Your task to perform on an android device: open app "Yahoo Mail" (install if not already installed) and go to login screen Image 0: 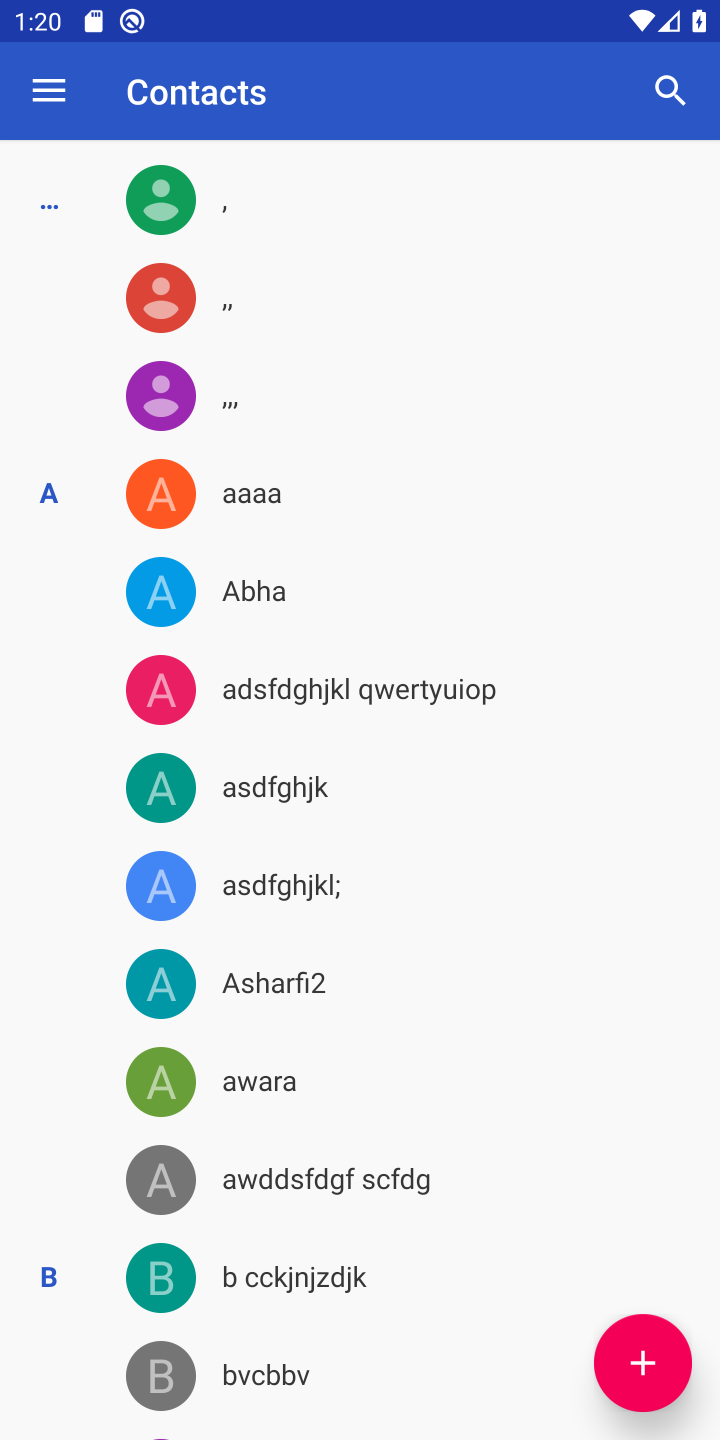
Step 0: press home button
Your task to perform on an android device: open app "Yahoo Mail" (install if not already installed) and go to login screen Image 1: 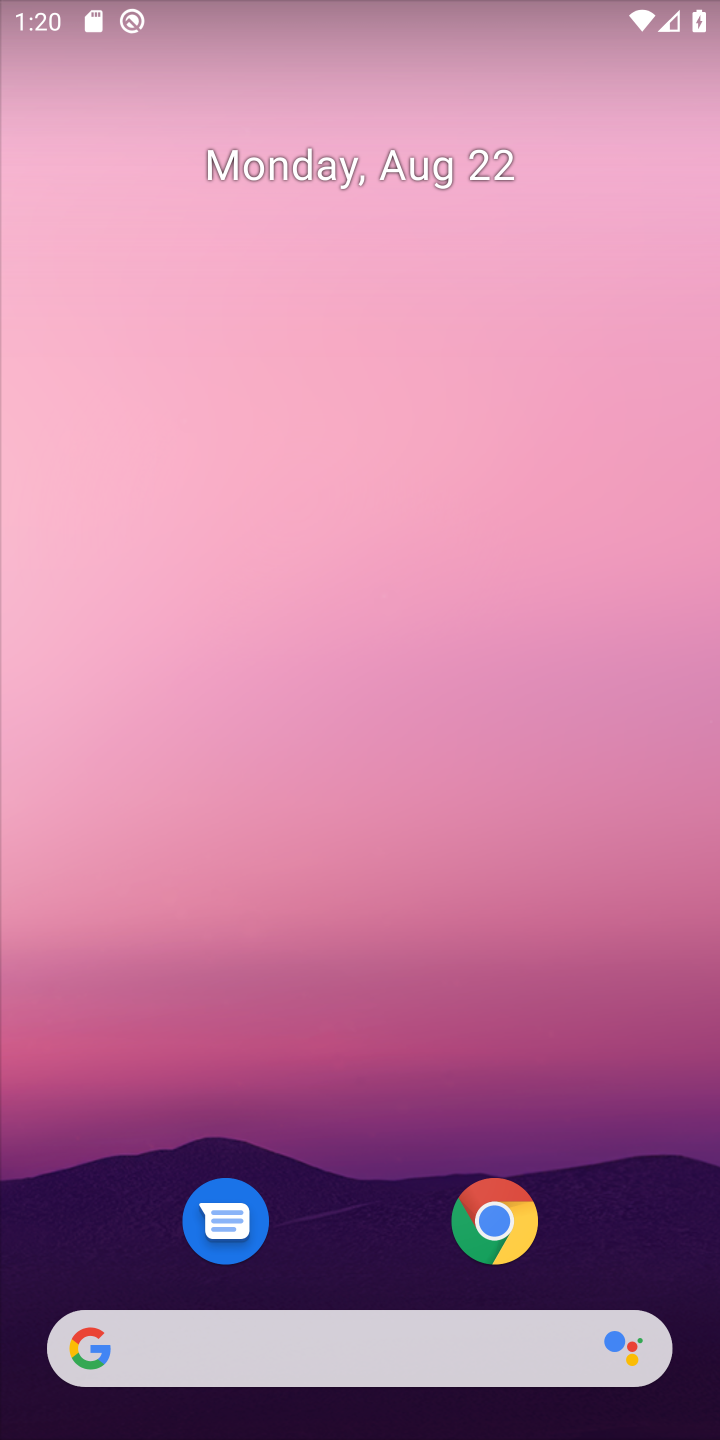
Step 1: drag from (380, 1255) to (375, 140)
Your task to perform on an android device: open app "Yahoo Mail" (install if not already installed) and go to login screen Image 2: 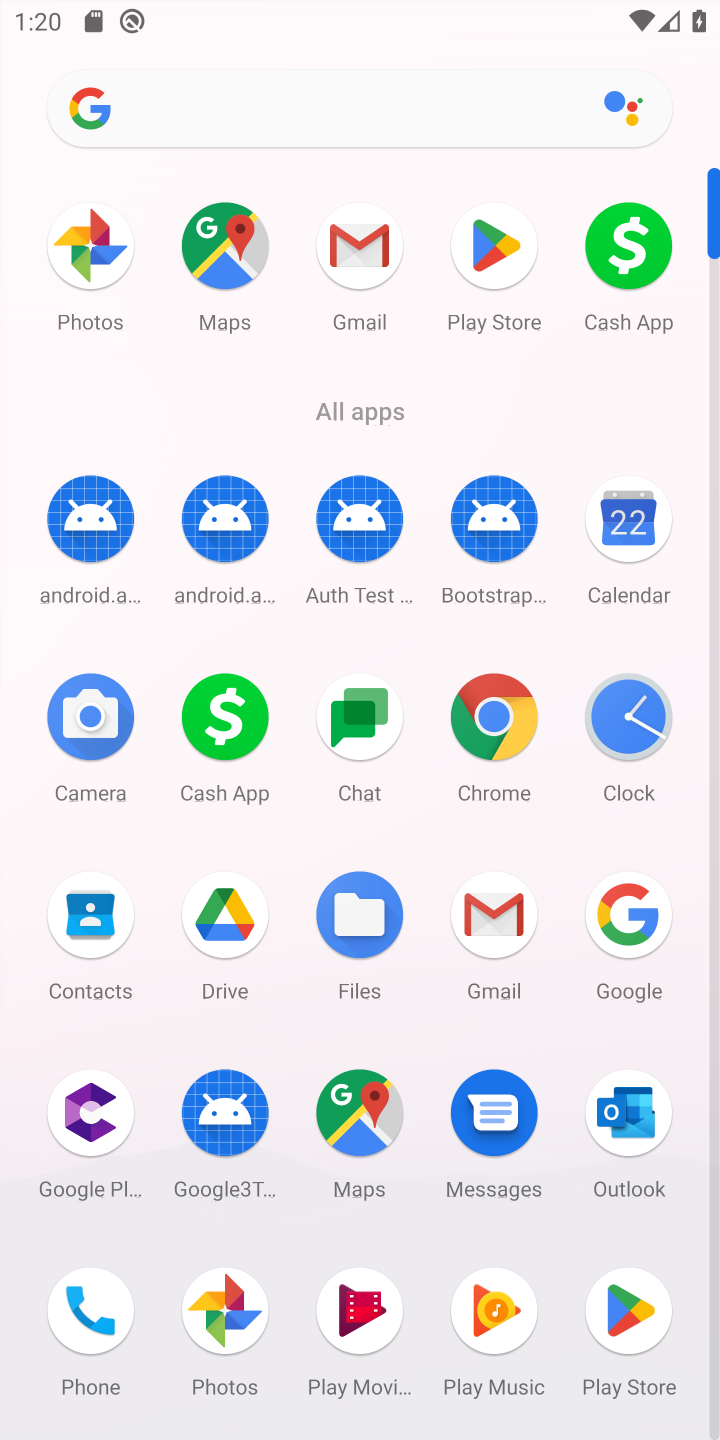
Step 2: click (494, 238)
Your task to perform on an android device: open app "Yahoo Mail" (install if not already installed) and go to login screen Image 3: 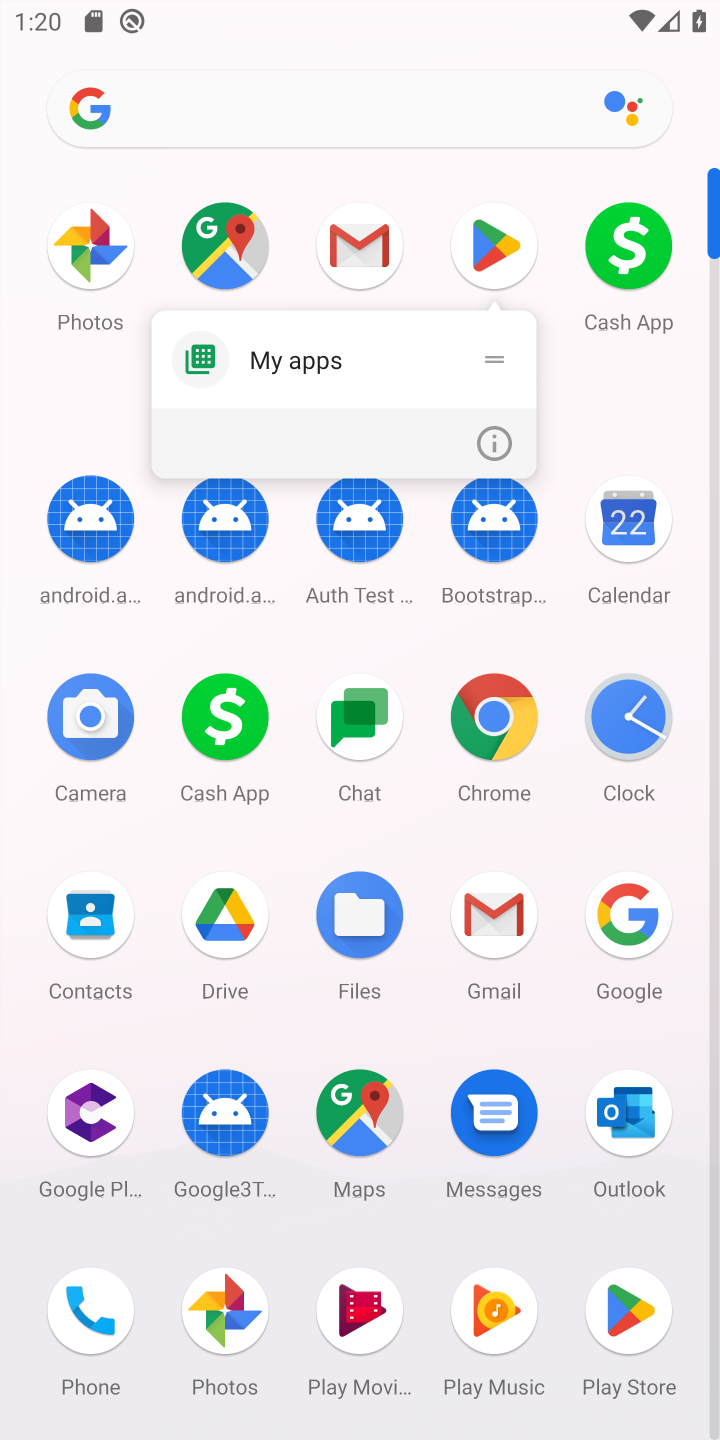
Step 3: click (494, 238)
Your task to perform on an android device: open app "Yahoo Mail" (install if not already installed) and go to login screen Image 4: 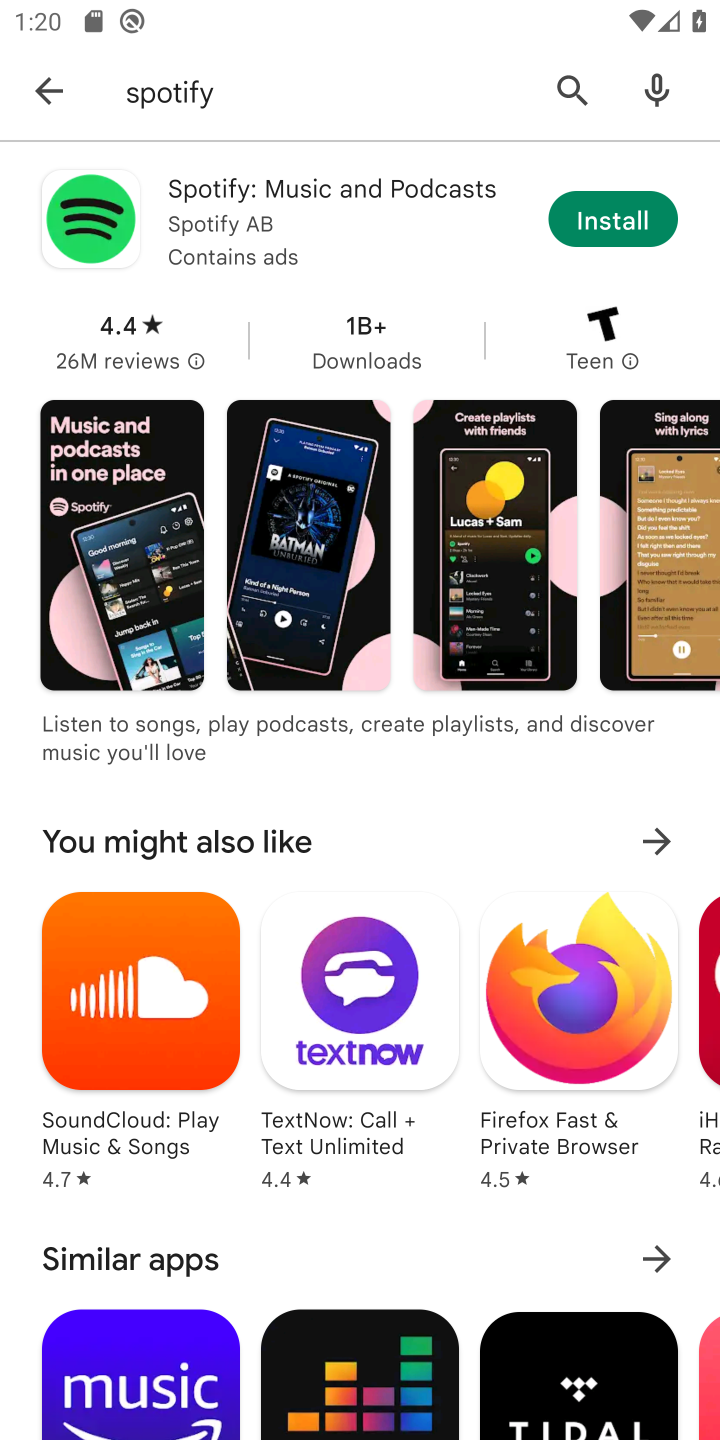
Step 4: click (564, 84)
Your task to perform on an android device: open app "Yahoo Mail" (install if not already installed) and go to login screen Image 5: 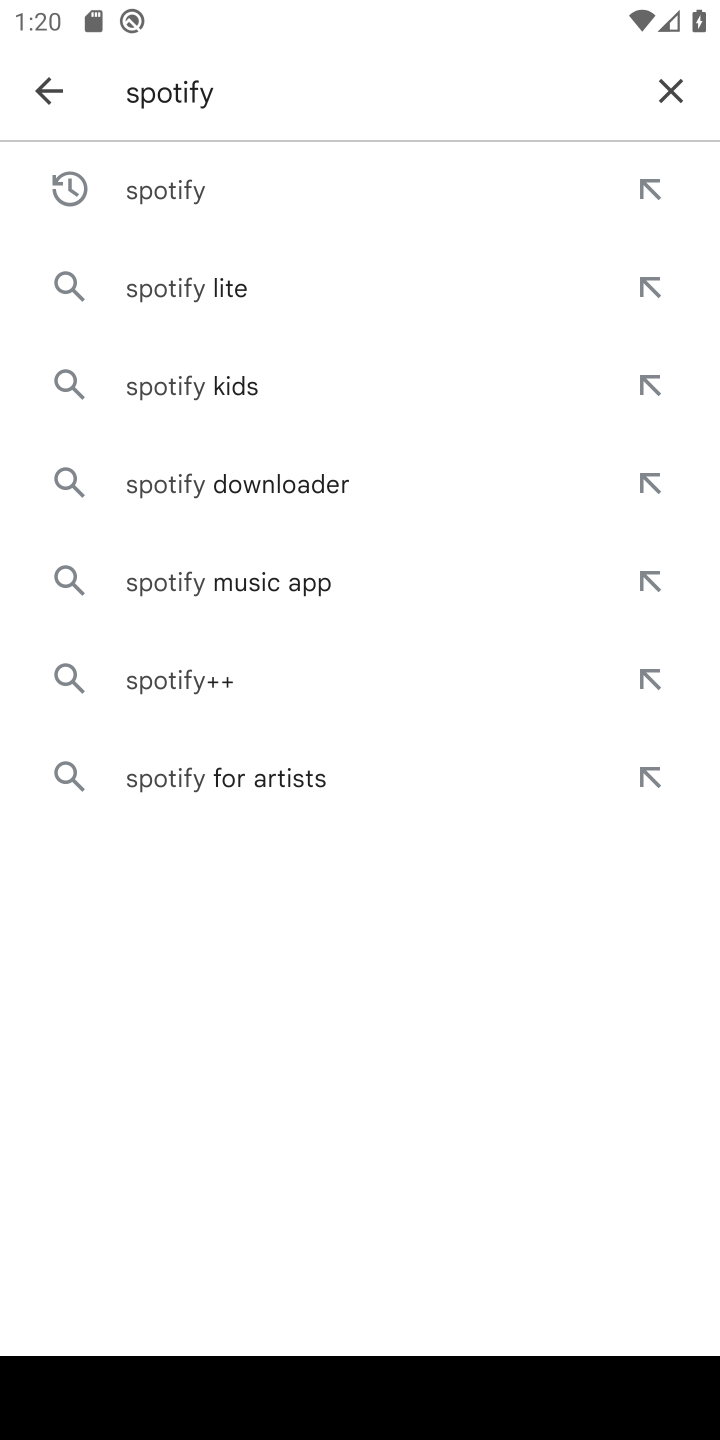
Step 5: click (667, 99)
Your task to perform on an android device: open app "Yahoo Mail" (install if not already installed) and go to login screen Image 6: 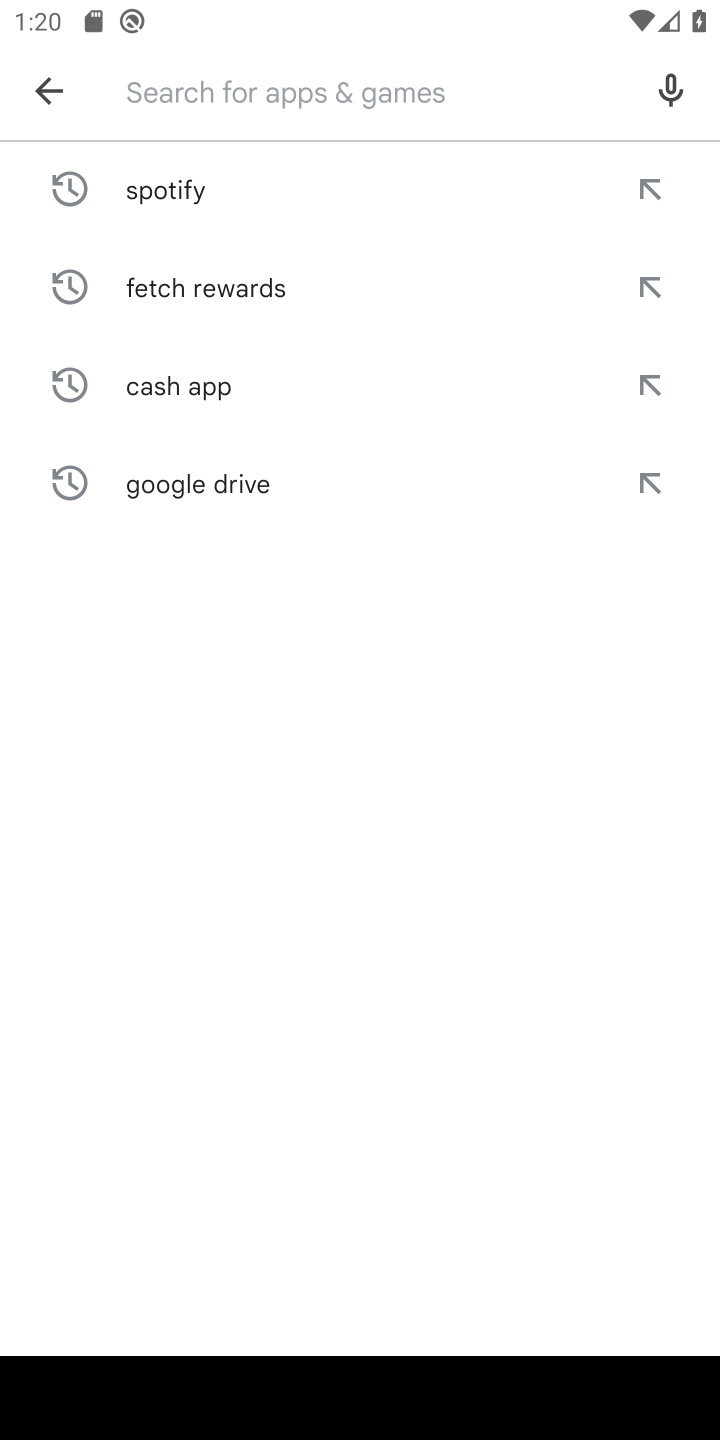
Step 6: type "Yahoo Mail"
Your task to perform on an android device: open app "Yahoo Mail" (install if not already installed) and go to login screen Image 7: 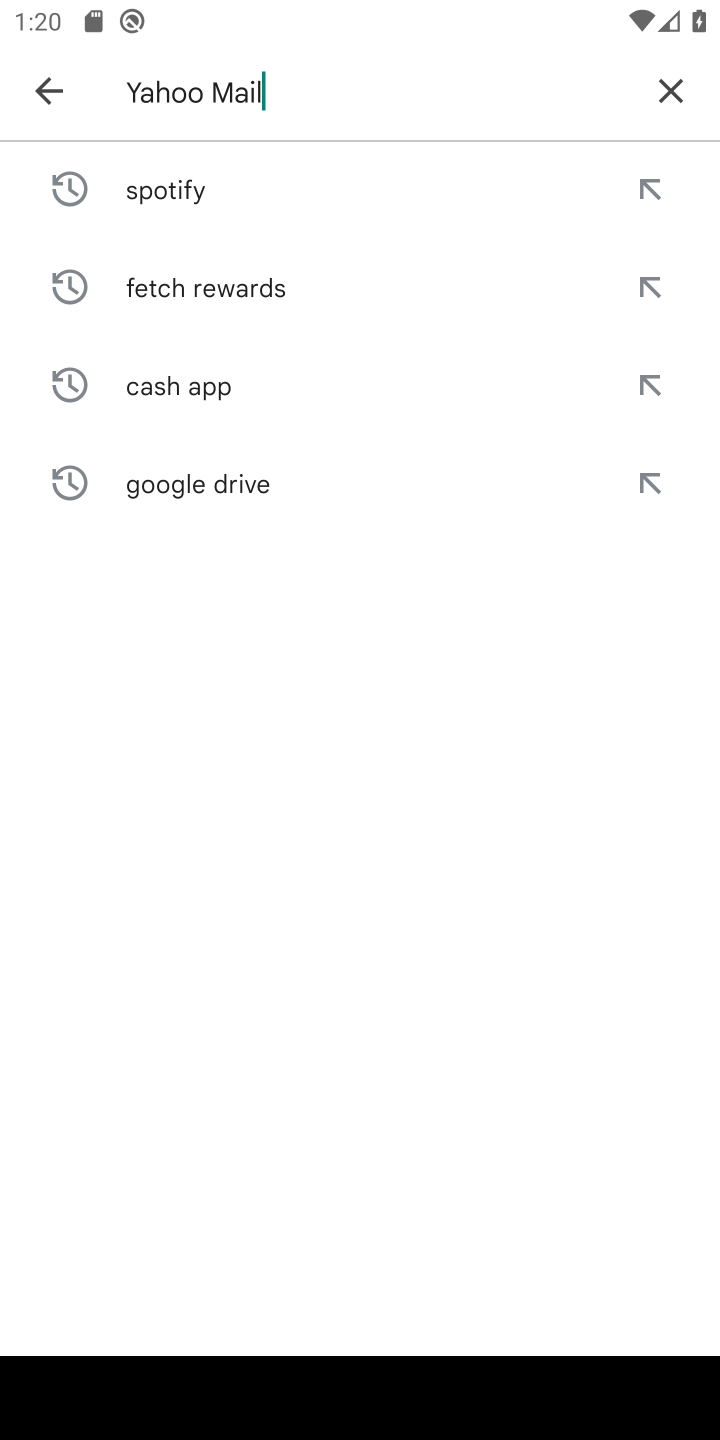
Step 7: type ""
Your task to perform on an android device: open app "Yahoo Mail" (install if not already installed) and go to login screen Image 8: 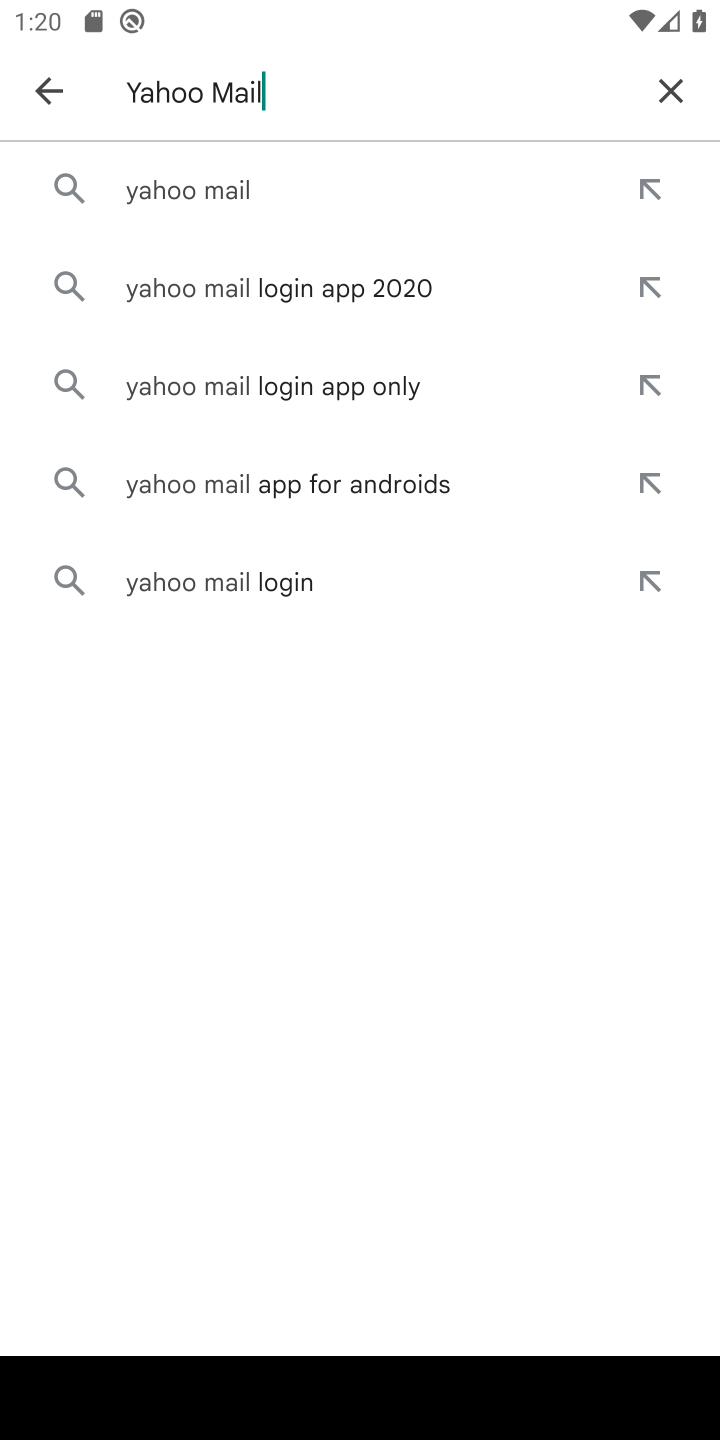
Step 8: click (286, 176)
Your task to perform on an android device: open app "Yahoo Mail" (install if not already installed) and go to login screen Image 9: 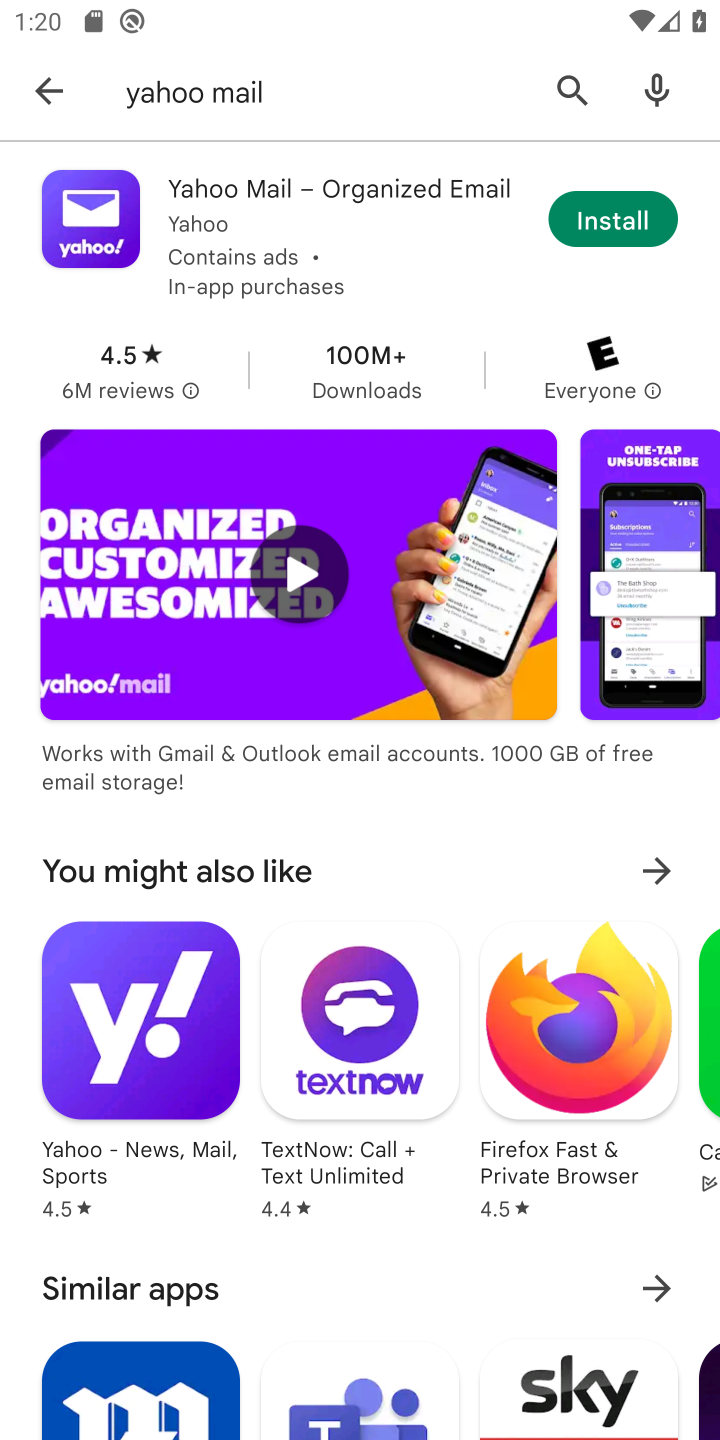
Step 9: click (619, 225)
Your task to perform on an android device: open app "Yahoo Mail" (install if not already installed) and go to login screen Image 10: 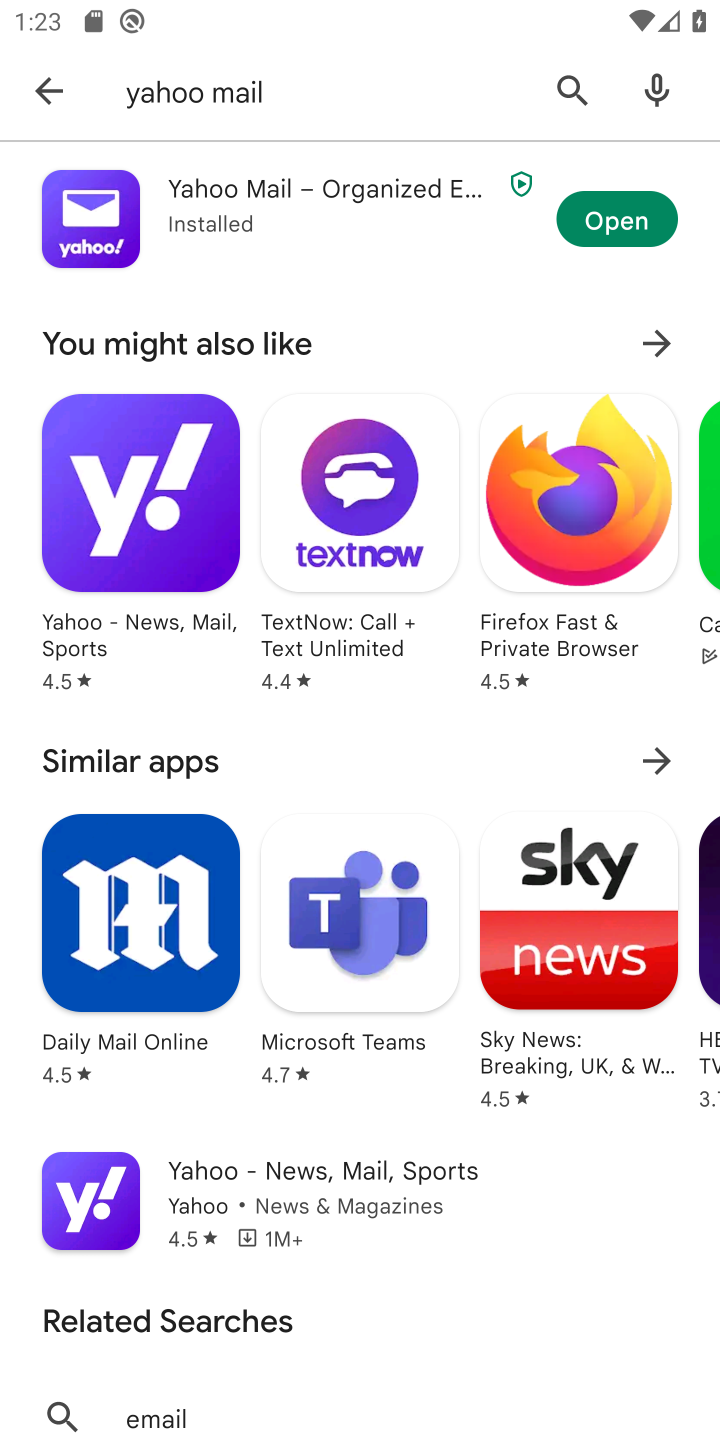
Step 10: click (618, 221)
Your task to perform on an android device: open app "Yahoo Mail" (install if not already installed) and go to login screen Image 11: 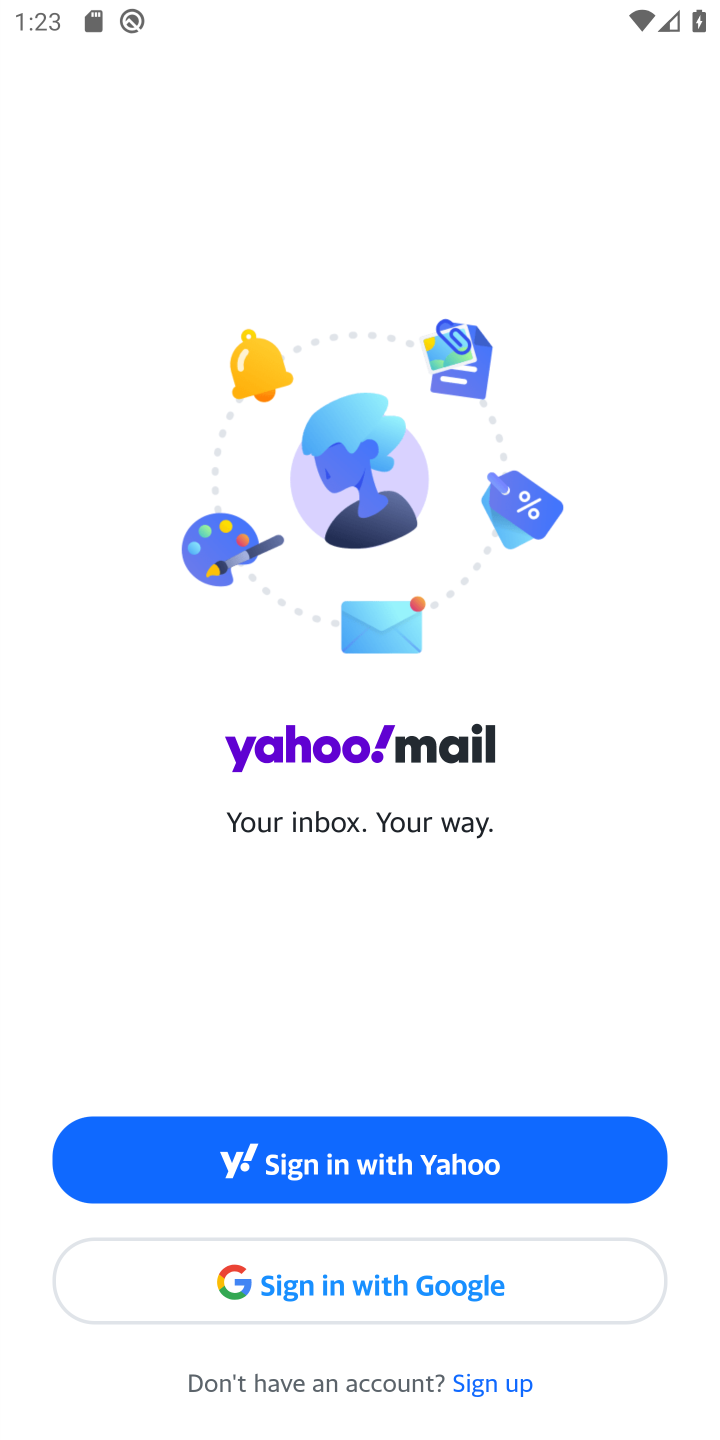
Step 11: task complete